Your task to perform on an android device: toggle priority inbox in the gmail app Image 0: 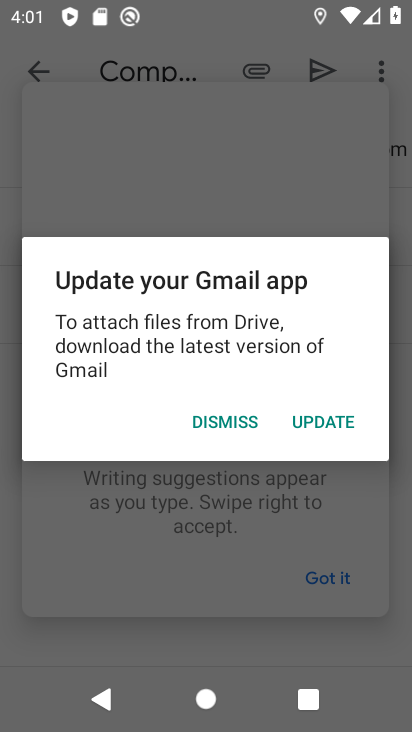
Step 0: press home button
Your task to perform on an android device: toggle priority inbox in the gmail app Image 1: 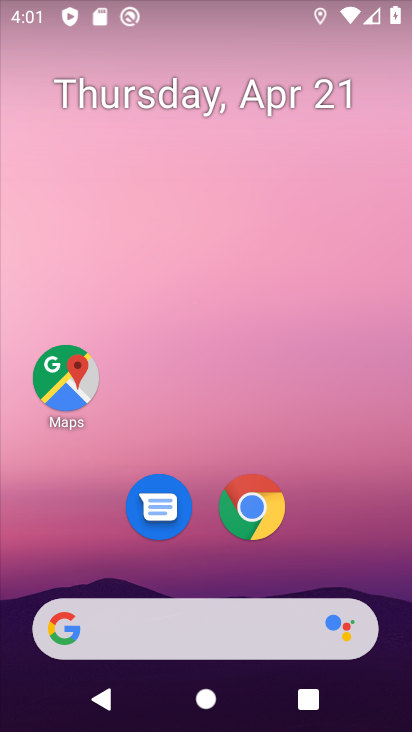
Step 1: drag from (332, 534) to (308, 75)
Your task to perform on an android device: toggle priority inbox in the gmail app Image 2: 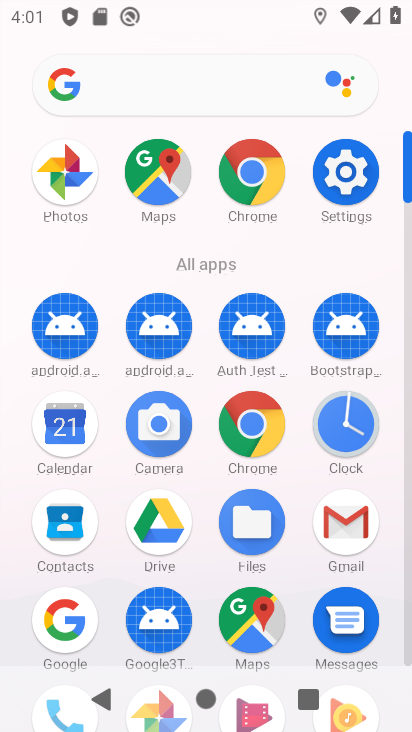
Step 2: click (358, 513)
Your task to perform on an android device: toggle priority inbox in the gmail app Image 3: 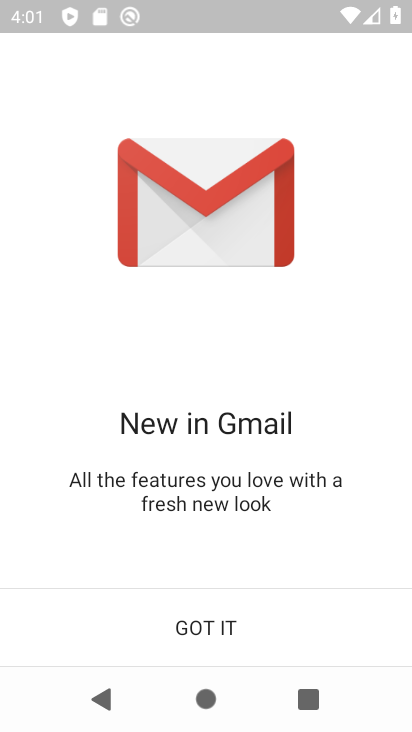
Step 3: click (223, 631)
Your task to perform on an android device: toggle priority inbox in the gmail app Image 4: 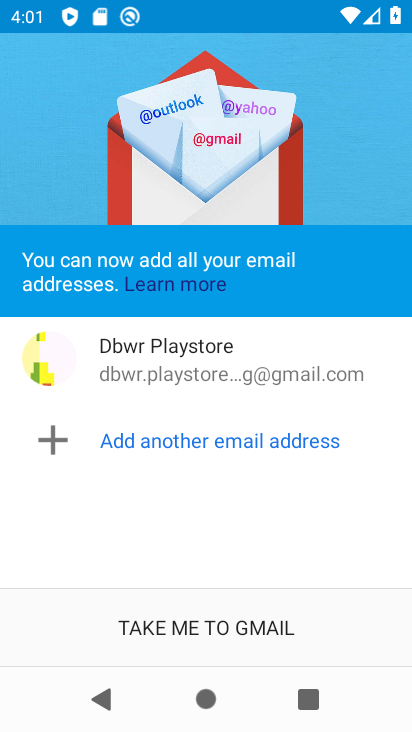
Step 4: click (223, 631)
Your task to perform on an android device: toggle priority inbox in the gmail app Image 5: 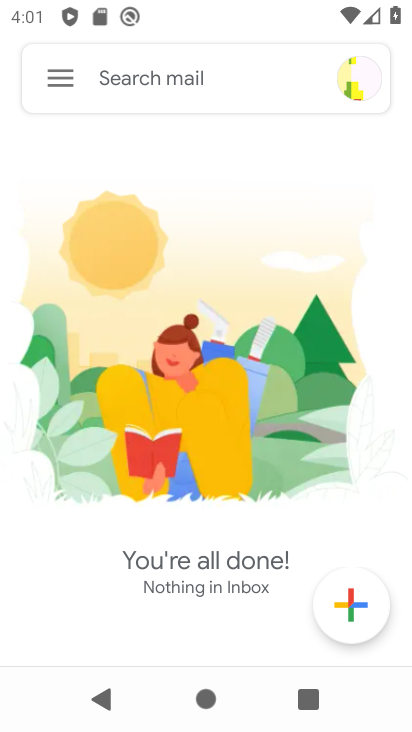
Step 5: click (67, 81)
Your task to perform on an android device: toggle priority inbox in the gmail app Image 6: 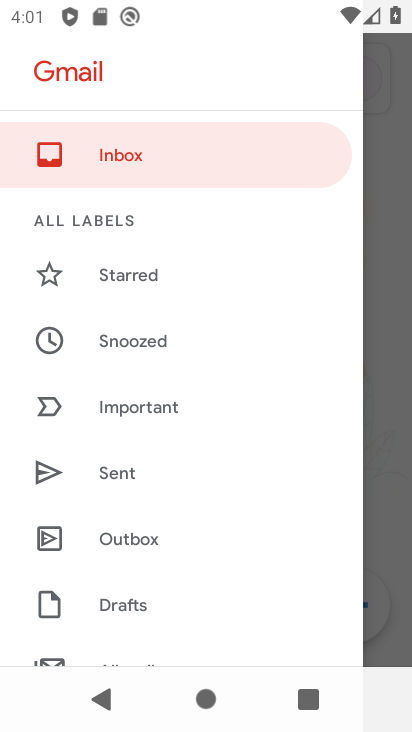
Step 6: drag from (210, 573) to (268, 99)
Your task to perform on an android device: toggle priority inbox in the gmail app Image 7: 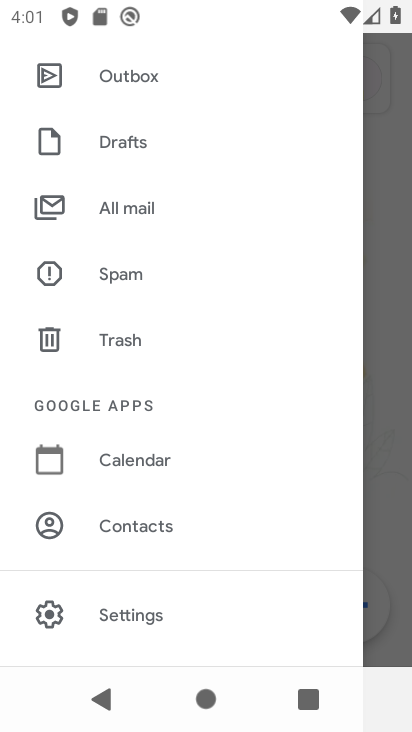
Step 7: click (259, 616)
Your task to perform on an android device: toggle priority inbox in the gmail app Image 8: 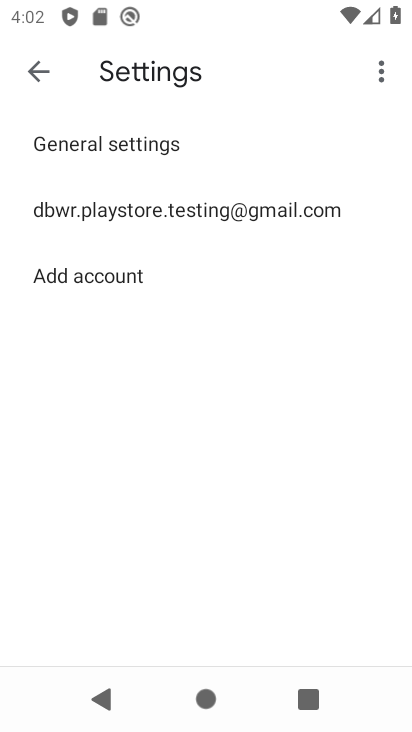
Step 8: click (295, 217)
Your task to perform on an android device: toggle priority inbox in the gmail app Image 9: 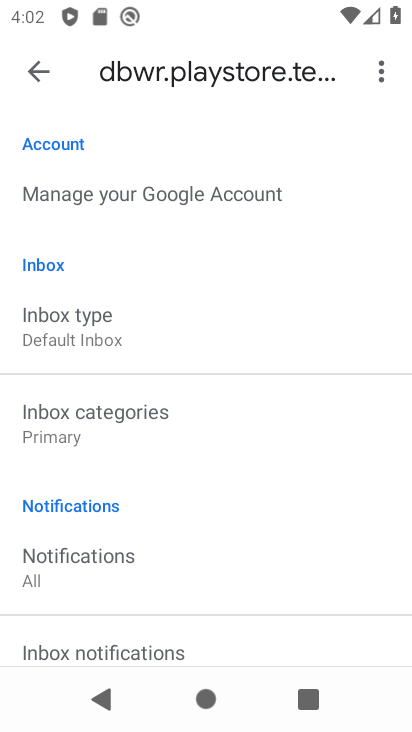
Step 9: click (227, 324)
Your task to perform on an android device: toggle priority inbox in the gmail app Image 10: 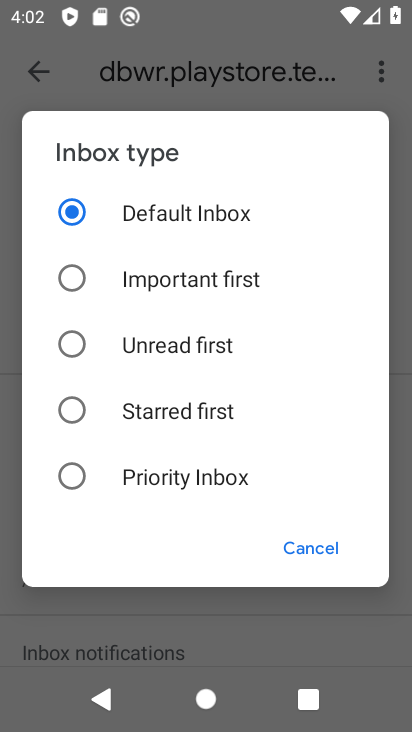
Step 10: click (198, 471)
Your task to perform on an android device: toggle priority inbox in the gmail app Image 11: 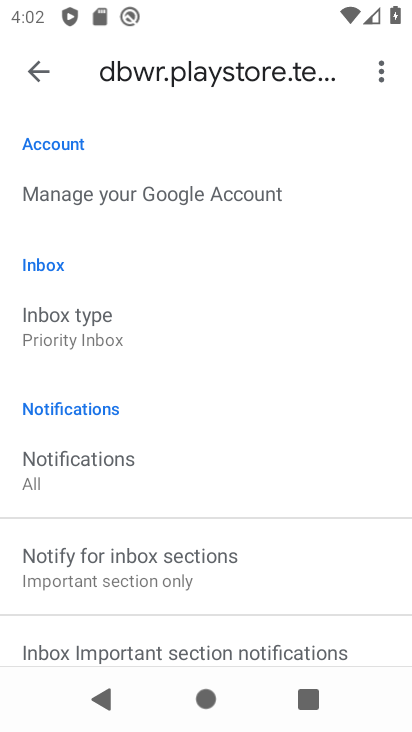
Step 11: task complete